Your task to perform on an android device: Open ESPN.com Image 0: 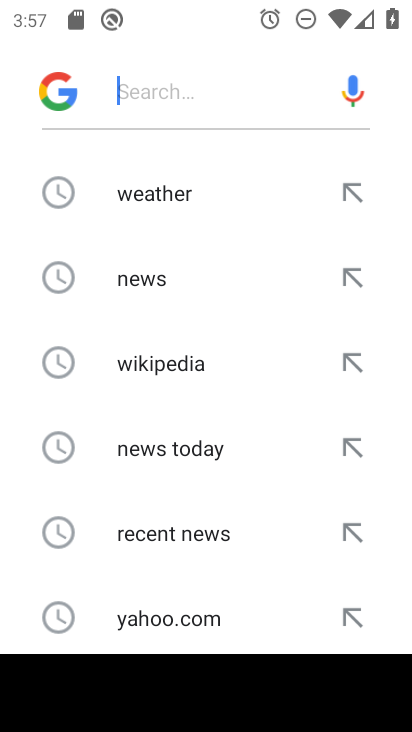
Step 0: press home button
Your task to perform on an android device: Open ESPN.com Image 1: 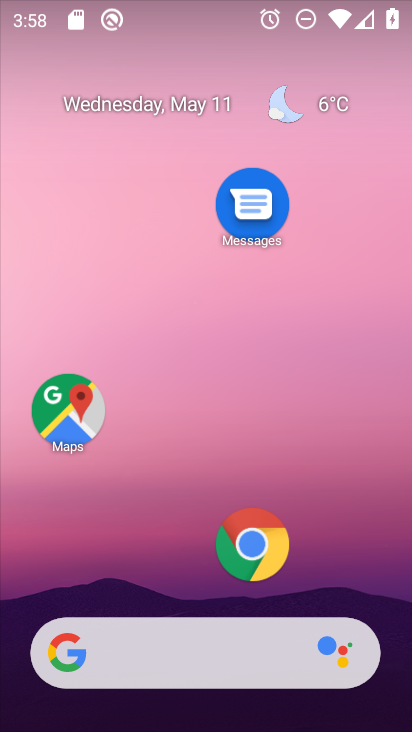
Step 1: click (265, 545)
Your task to perform on an android device: Open ESPN.com Image 2: 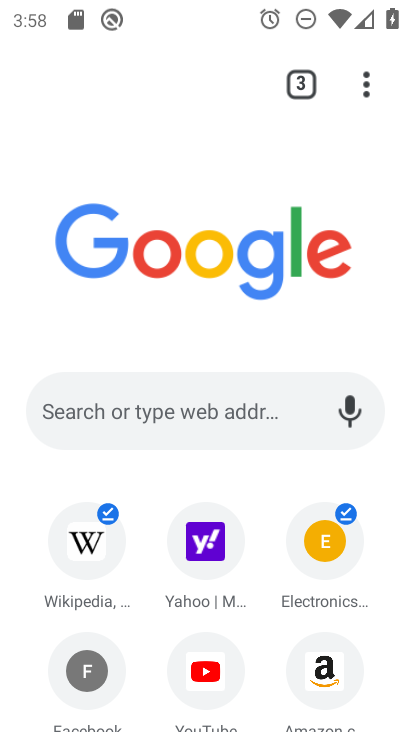
Step 2: drag from (203, 670) to (266, 218)
Your task to perform on an android device: Open ESPN.com Image 3: 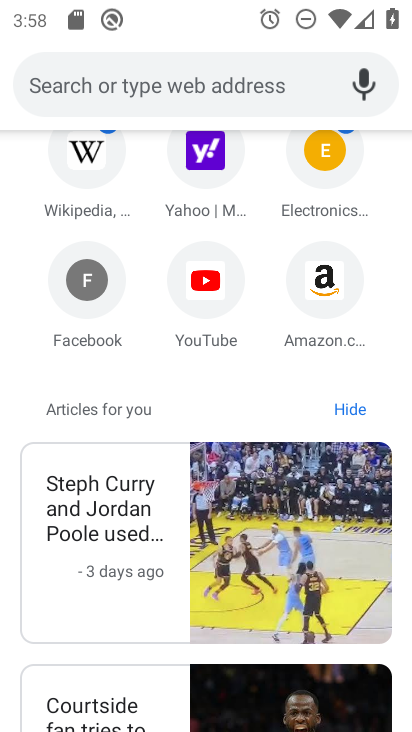
Step 3: drag from (214, 228) to (161, 713)
Your task to perform on an android device: Open ESPN.com Image 4: 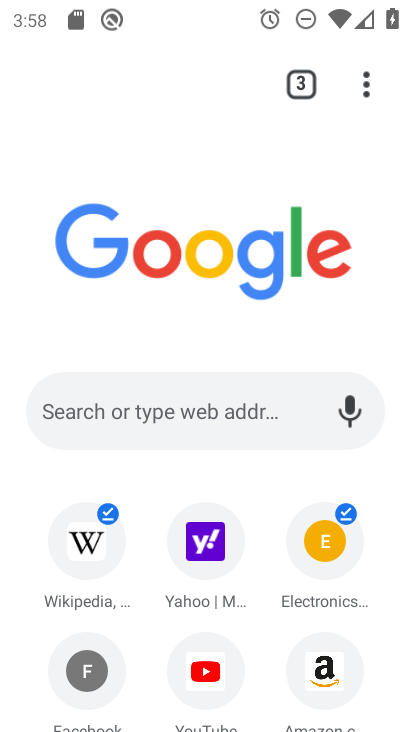
Step 4: click (144, 408)
Your task to perform on an android device: Open ESPN.com Image 5: 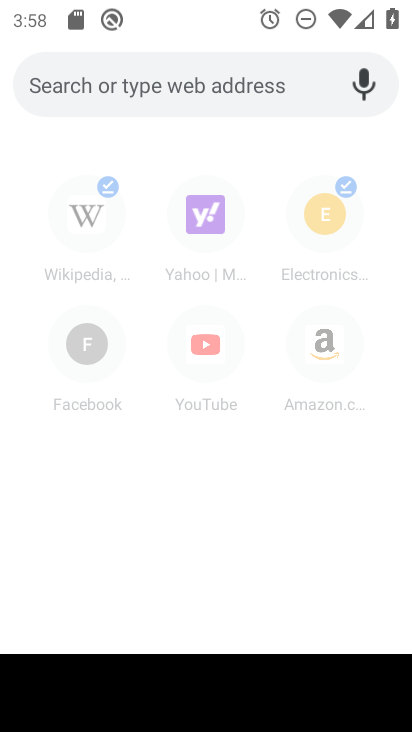
Step 5: type "espn.com"
Your task to perform on an android device: Open ESPN.com Image 6: 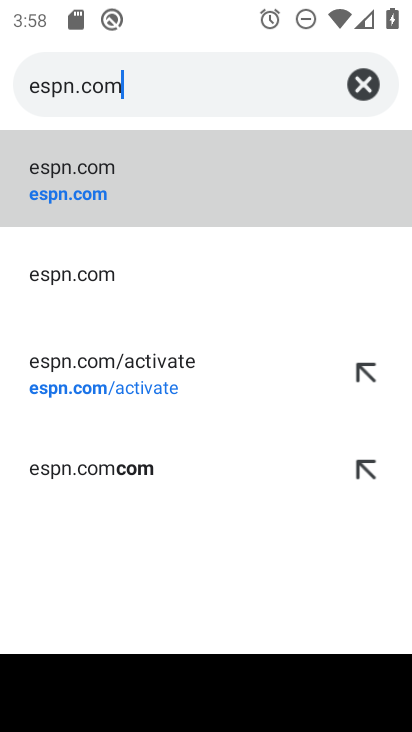
Step 6: click (94, 175)
Your task to perform on an android device: Open ESPN.com Image 7: 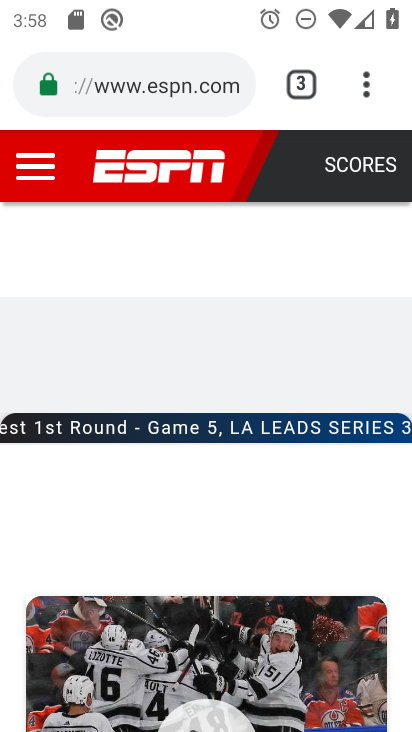
Step 7: task complete